Your task to perform on an android device: What is the news today? Image 0: 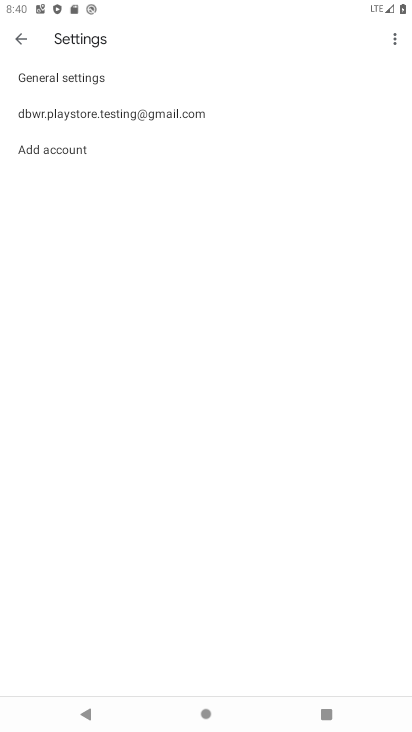
Step 0: press home button
Your task to perform on an android device: What is the news today? Image 1: 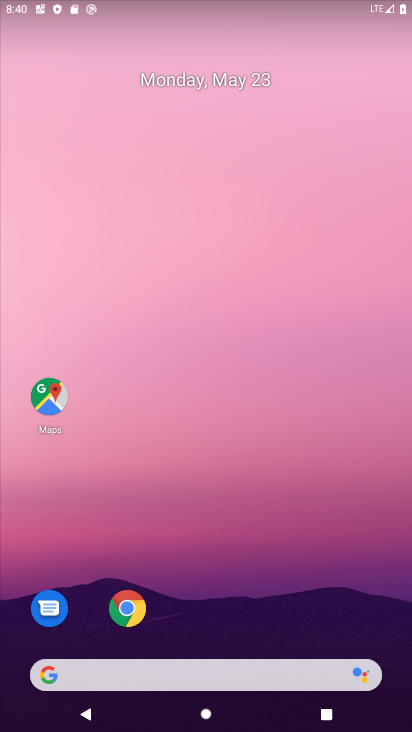
Step 1: task complete